Your task to perform on an android device: Open wifi settings Image 0: 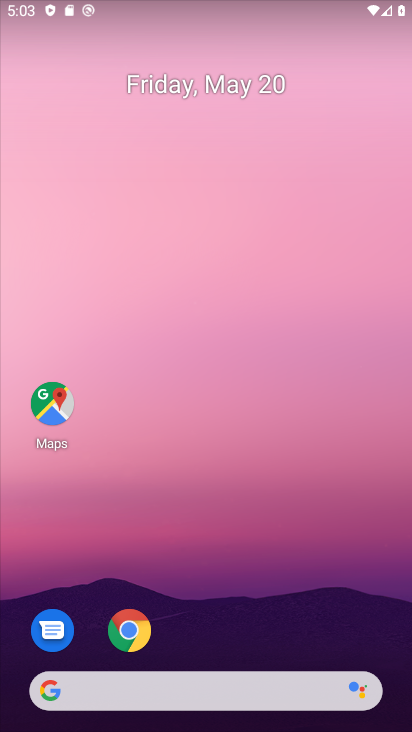
Step 0: drag from (249, 545) to (259, 54)
Your task to perform on an android device: Open wifi settings Image 1: 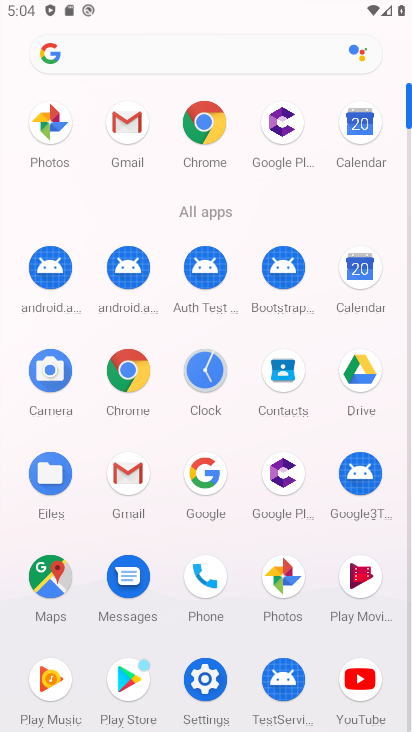
Step 1: click (205, 674)
Your task to perform on an android device: Open wifi settings Image 2: 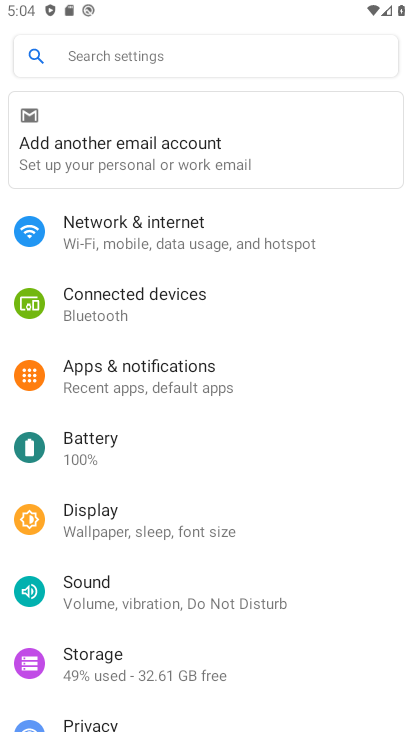
Step 2: click (202, 238)
Your task to perform on an android device: Open wifi settings Image 3: 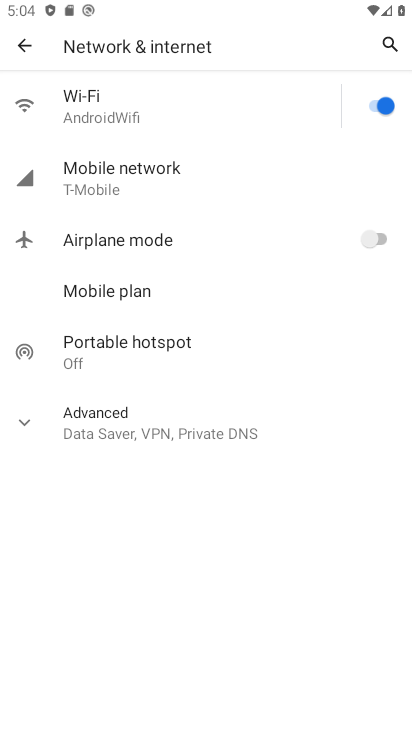
Step 3: click (136, 108)
Your task to perform on an android device: Open wifi settings Image 4: 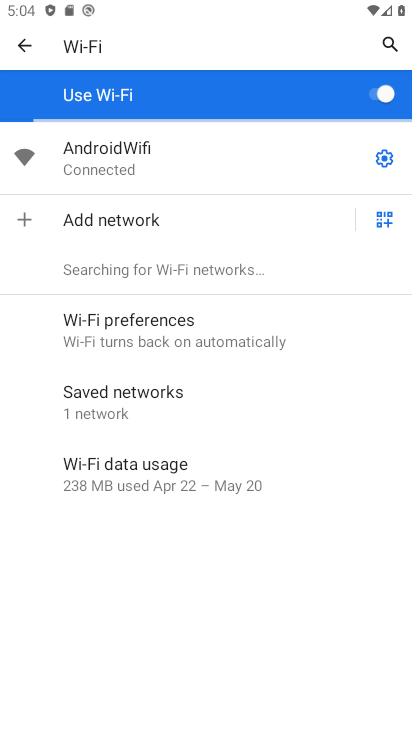
Step 4: task complete